Your task to perform on an android device: Go to accessibility settings Image 0: 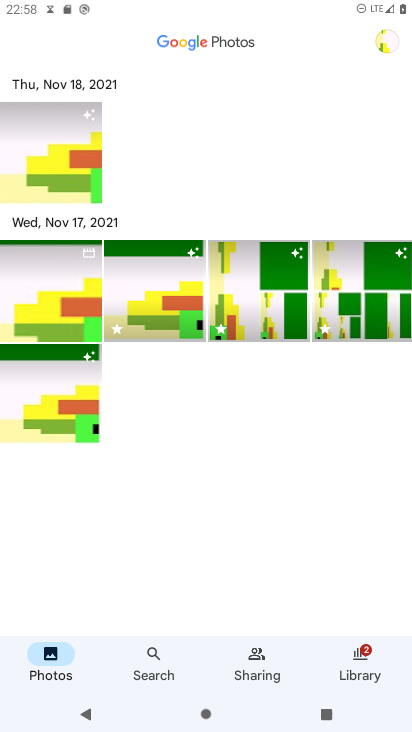
Step 0: press home button
Your task to perform on an android device: Go to accessibility settings Image 1: 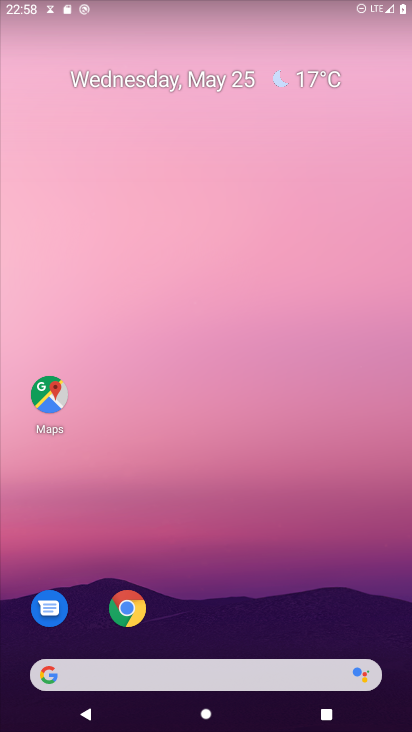
Step 1: drag from (260, 558) to (108, 0)
Your task to perform on an android device: Go to accessibility settings Image 2: 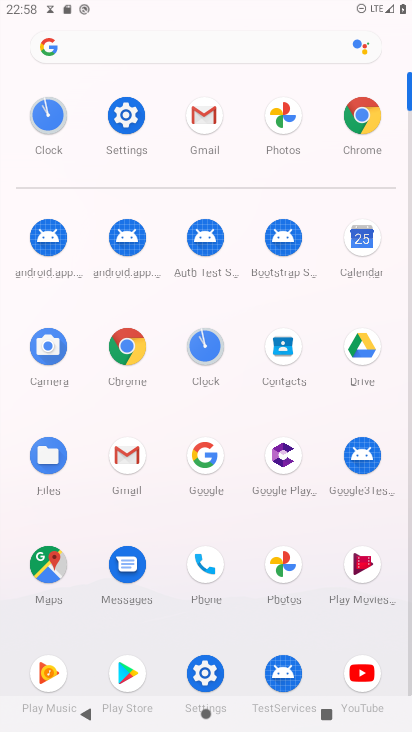
Step 2: click (121, 127)
Your task to perform on an android device: Go to accessibility settings Image 3: 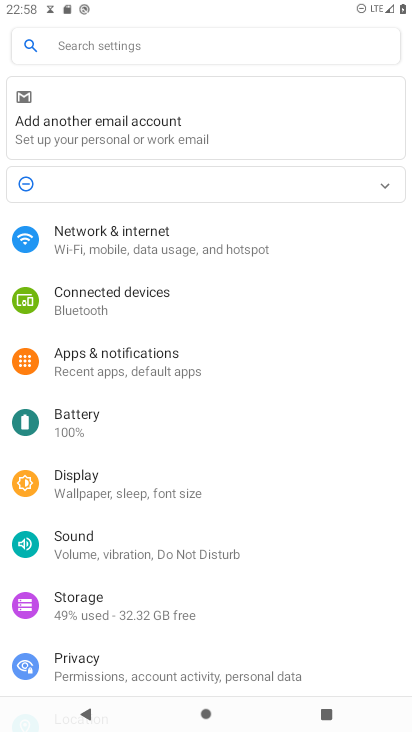
Step 3: drag from (212, 558) to (223, 73)
Your task to perform on an android device: Go to accessibility settings Image 4: 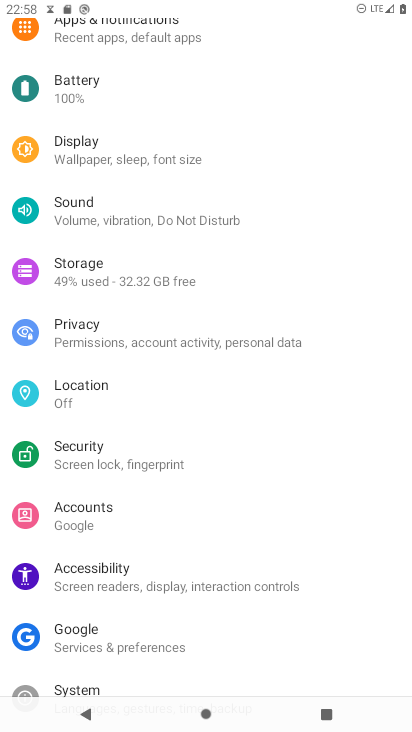
Step 4: click (140, 577)
Your task to perform on an android device: Go to accessibility settings Image 5: 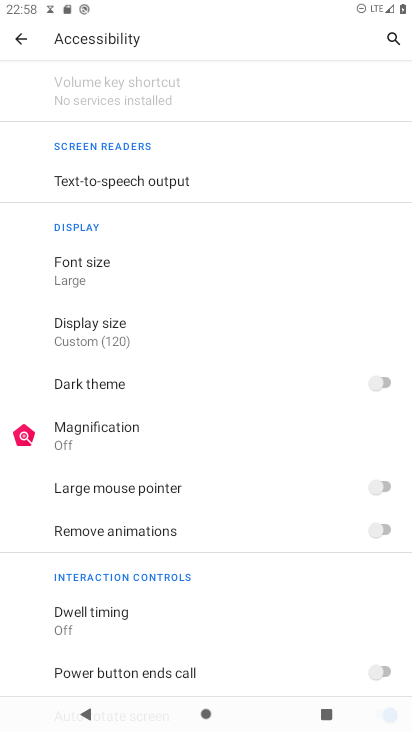
Step 5: task complete